Your task to perform on an android device: move an email to a new category in the gmail app Image 0: 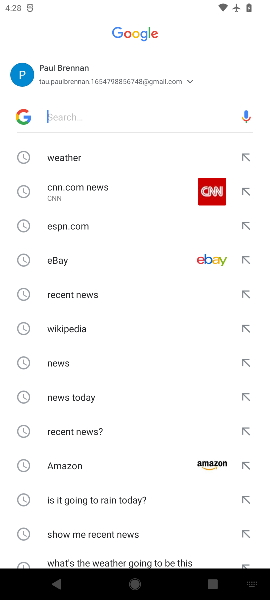
Step 0: press home button
Your task to perform on an android device: move an email to a new category in the gmail app Image 1: 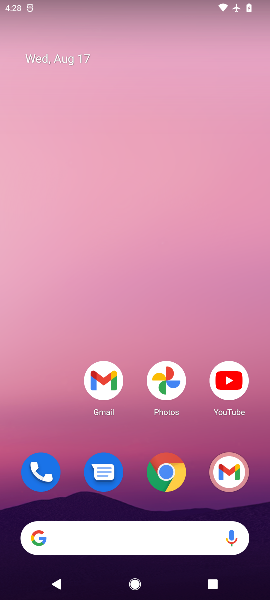
Step 1: click (101, 393)
Your task to perform on an android device: move an email to a new category in the gmail app Image 2: 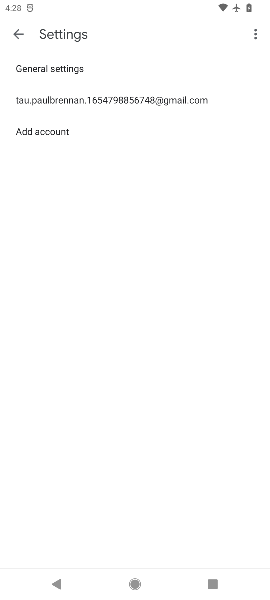
Step 2: click (23, 32)
Your task to perform on an android device: move an email to a new category in the gmail app Image 3: 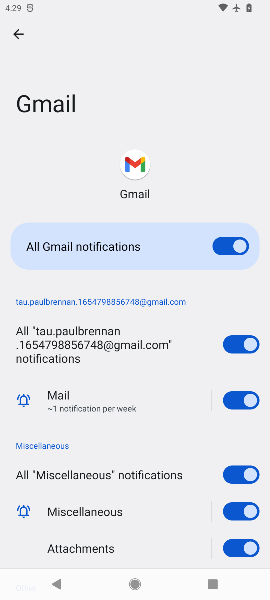
Step 3: click (21, 28)
Your task to perform on an android device: move an email to a new category in the gmail app Image 4: 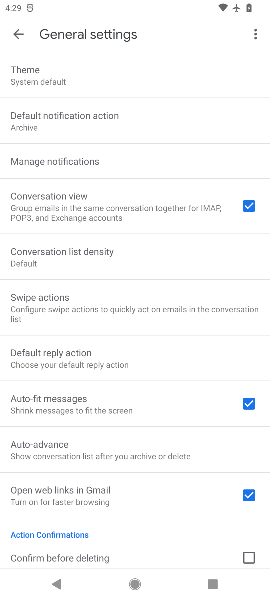
Step 4: click (18, 32)
Your task to perform on an android device: move an email to a new category in the gmail app Image 5: 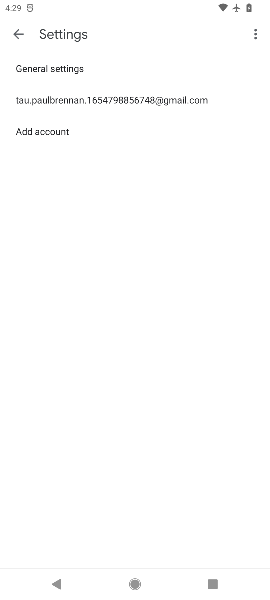
Step 5: click (18, 33)
Your task to perform on an android device: move an email to a new category in the gmail app Image 6: 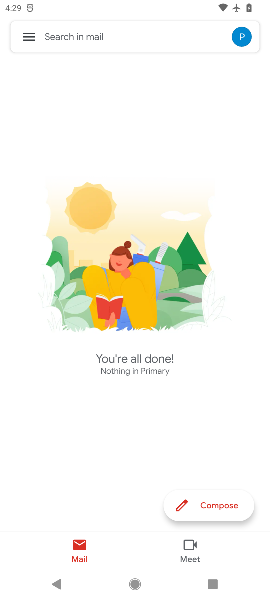
Step 6: task complete